Your task to perform on an android device: Do I have any events tomorrow? Image 0: 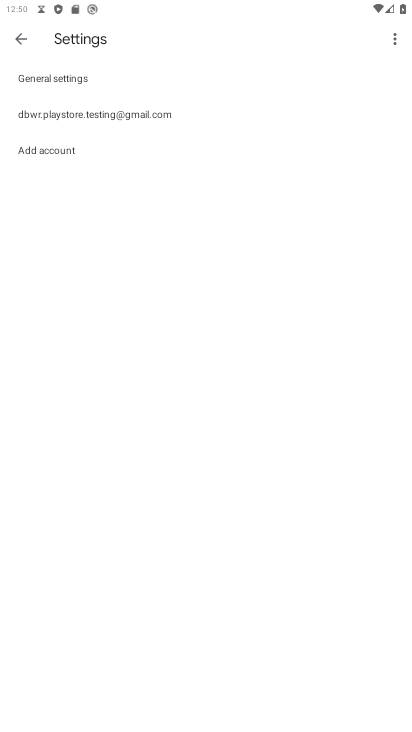
Step 0: press home button
Your task to perform on an android device: Do I have any events tomorrow? Image 1: 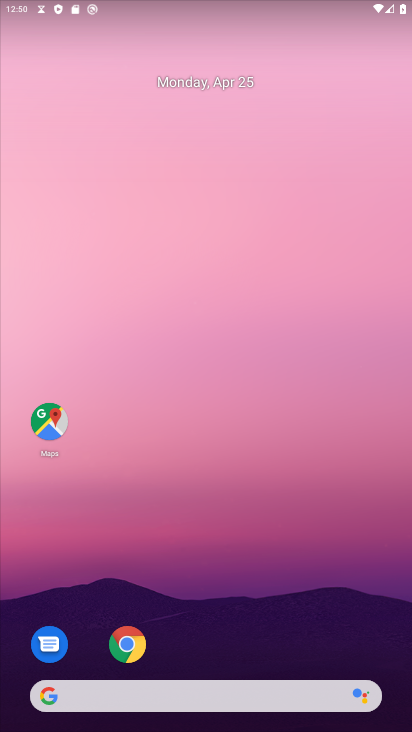
Step 1: drag from (378, 617) to (409, 221)
Your task to perform on an android device: Do I have any events tomorrow? Image 2: 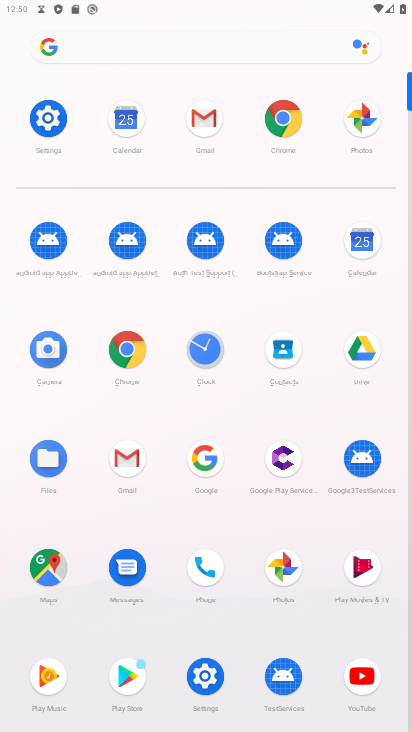
Step 2: click (358, 244)
Your task to perform on an android device: Do I have any events tomorrow? Image 3: 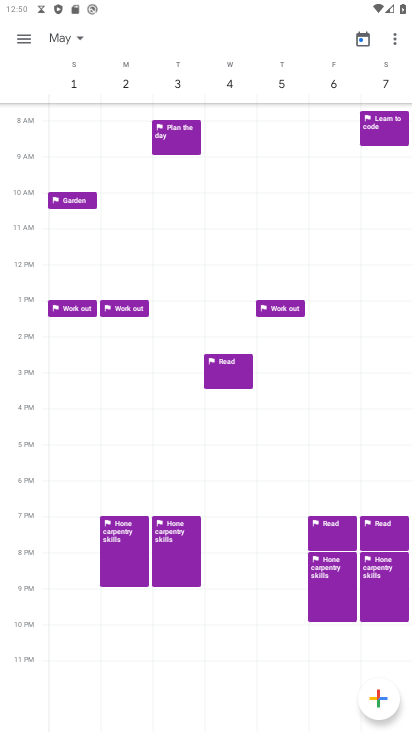
Step 3: click (80, 40)
Your task to perform on an android device: Do I have any events tomorrow? Image 4: 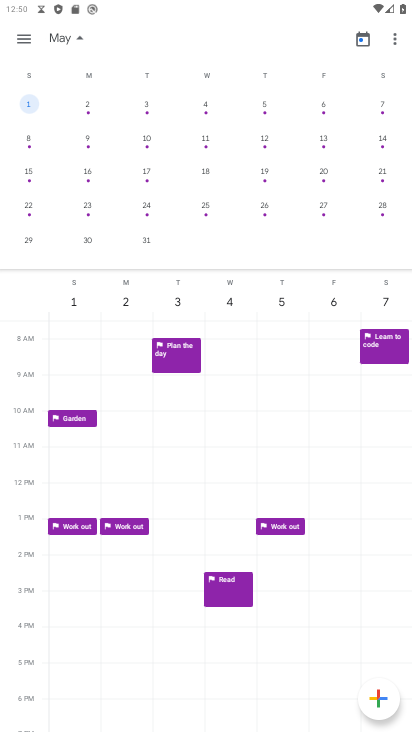
Step 4: drag from (47, 199) to (411, 221)
Your task to perform on an android device: Do I have any events tomorrow? Image 5: 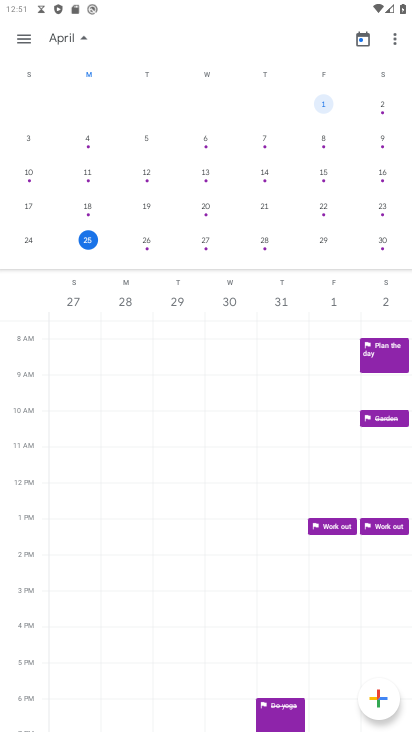
Step 5: click (145, 243)
Your task to perform on an android device: Do I have any events tomorrow? Image 6: 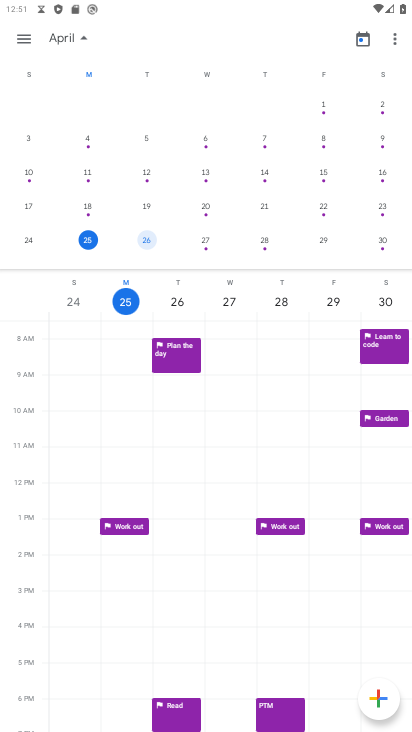
Step 6: click (168, 356)
Your task to perform on an android device: Do I have any events tomorrow? Image 7: 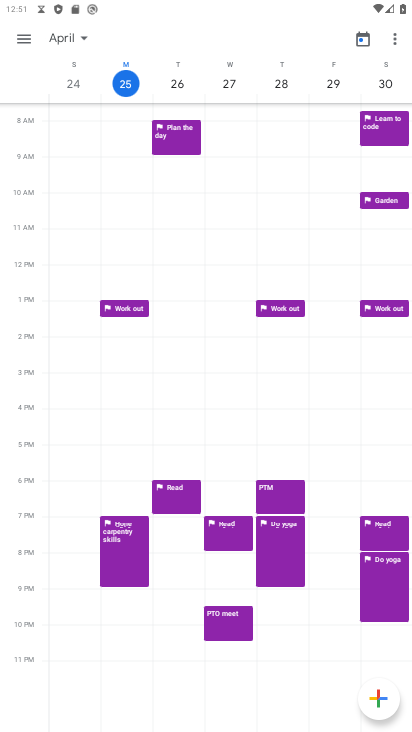
Step 7: click (172, 149)
Your task to perform on an android device: Do I have any events tomorrow? Image 8: 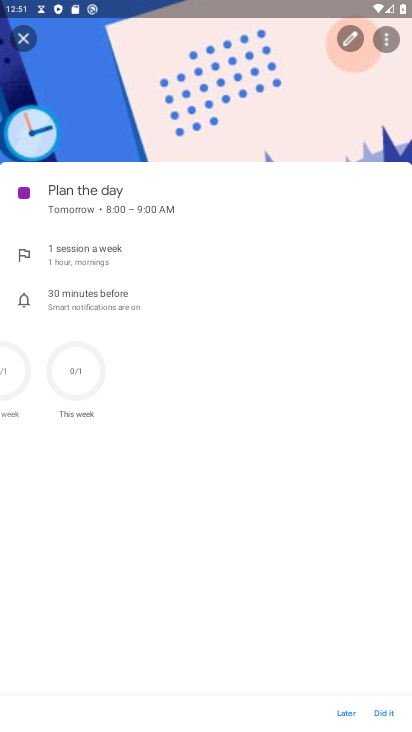
Step 8: task complete